Your task to perform on an android device: Add "alienware area 51" to the cart on walmart, then select checkout. Image 0: 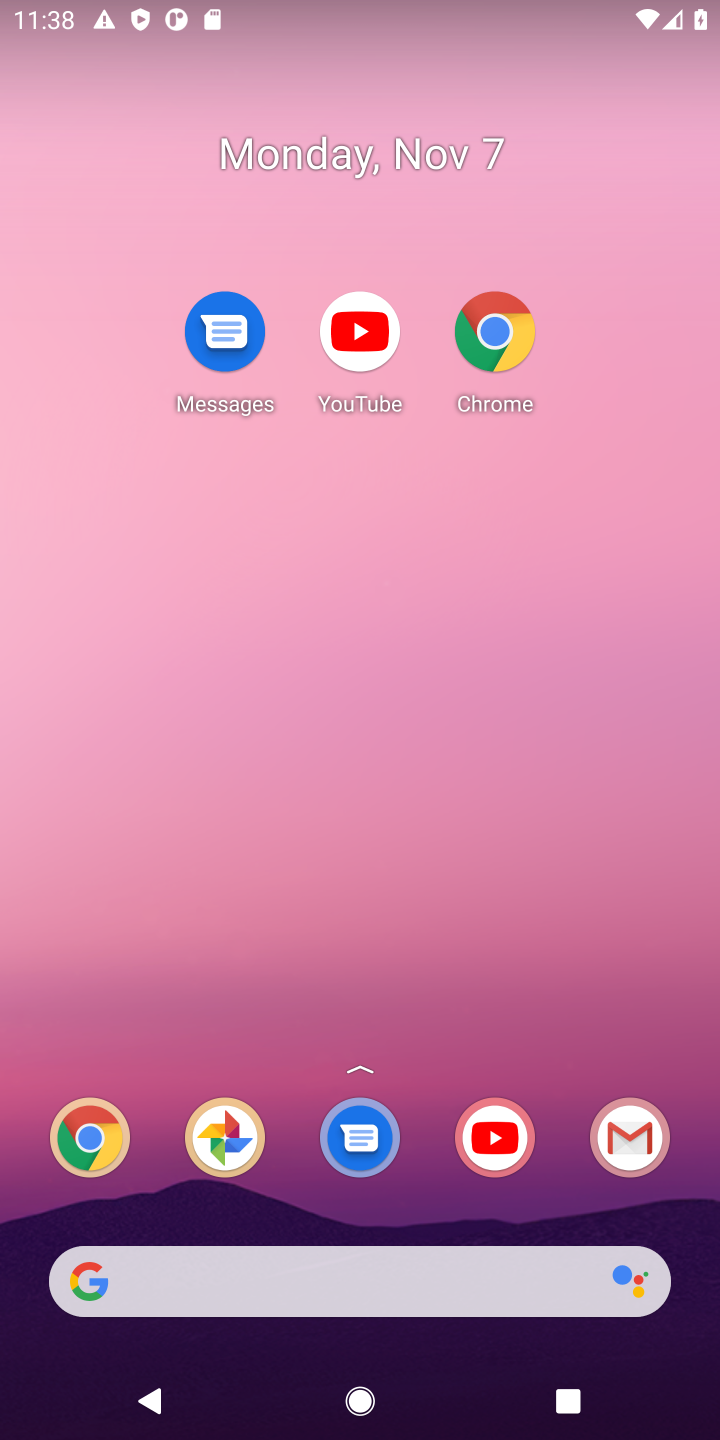
Step 0: drag from (406, 1045) to (383, 271)
Your task to perform on an android device: Add "alienware area 51" to the cart on walmart, then select checkout. Image 1: 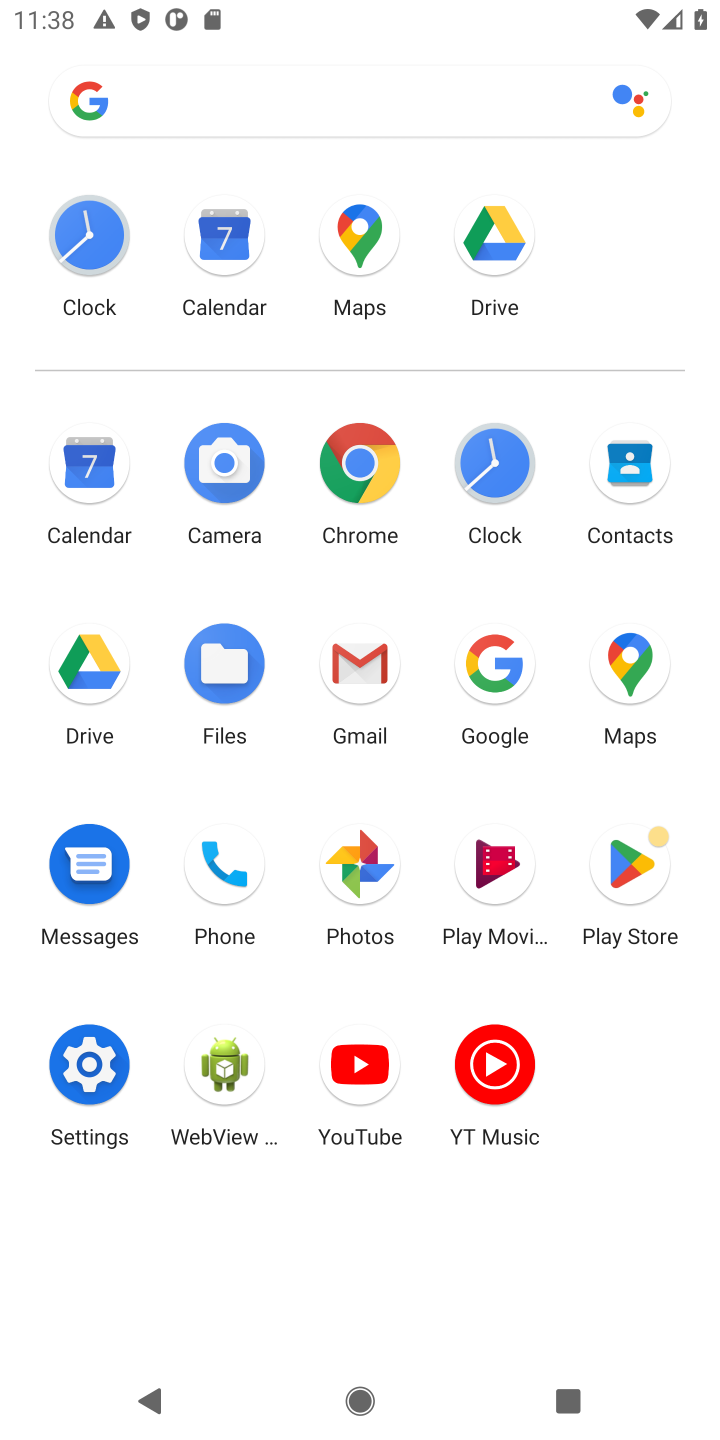
Step 1: click (359, 463)
Your task to perform on an android device: Add "alienware area 51" to the cart on walmart, then select checkout. Image 2: 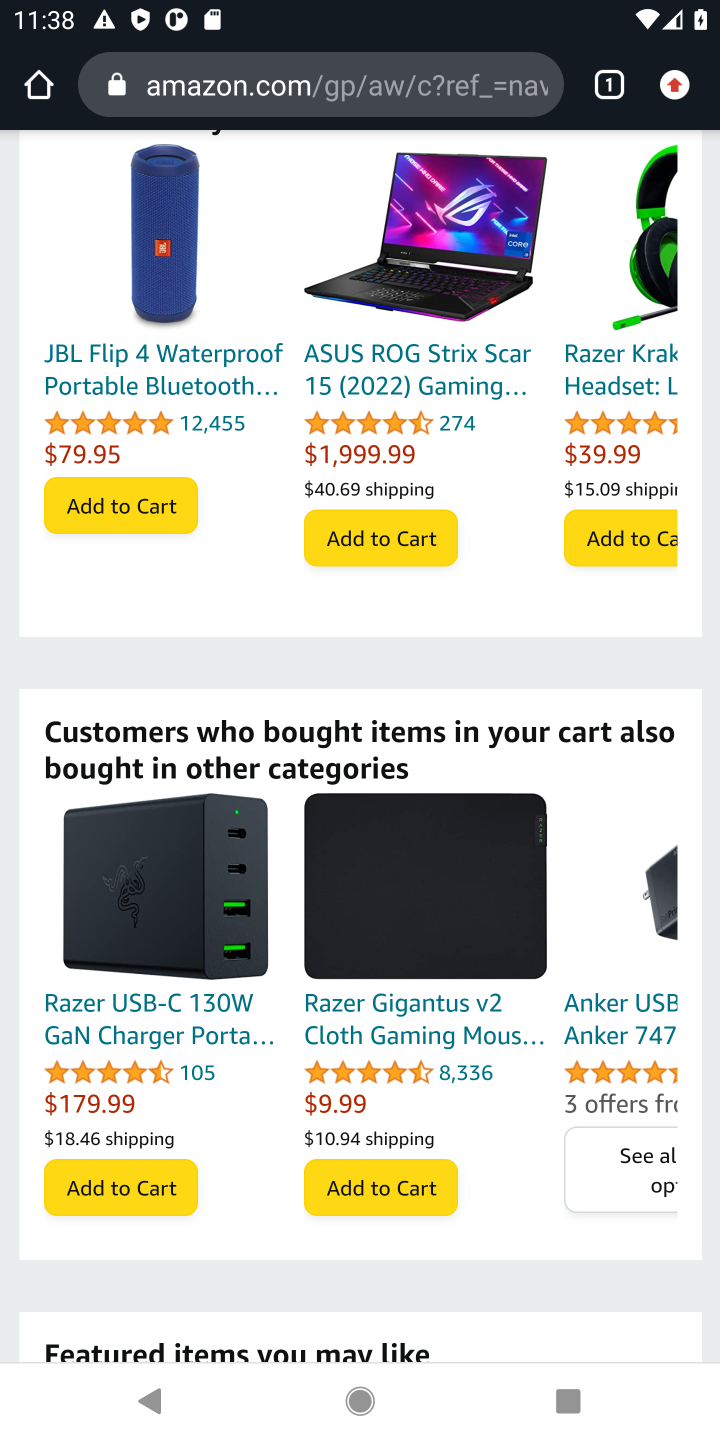
Step 2: click (359, 69)
Your task to perform on an android device: Add "alienware area 51" to the cart on walmart, then select checkout. Image 3: 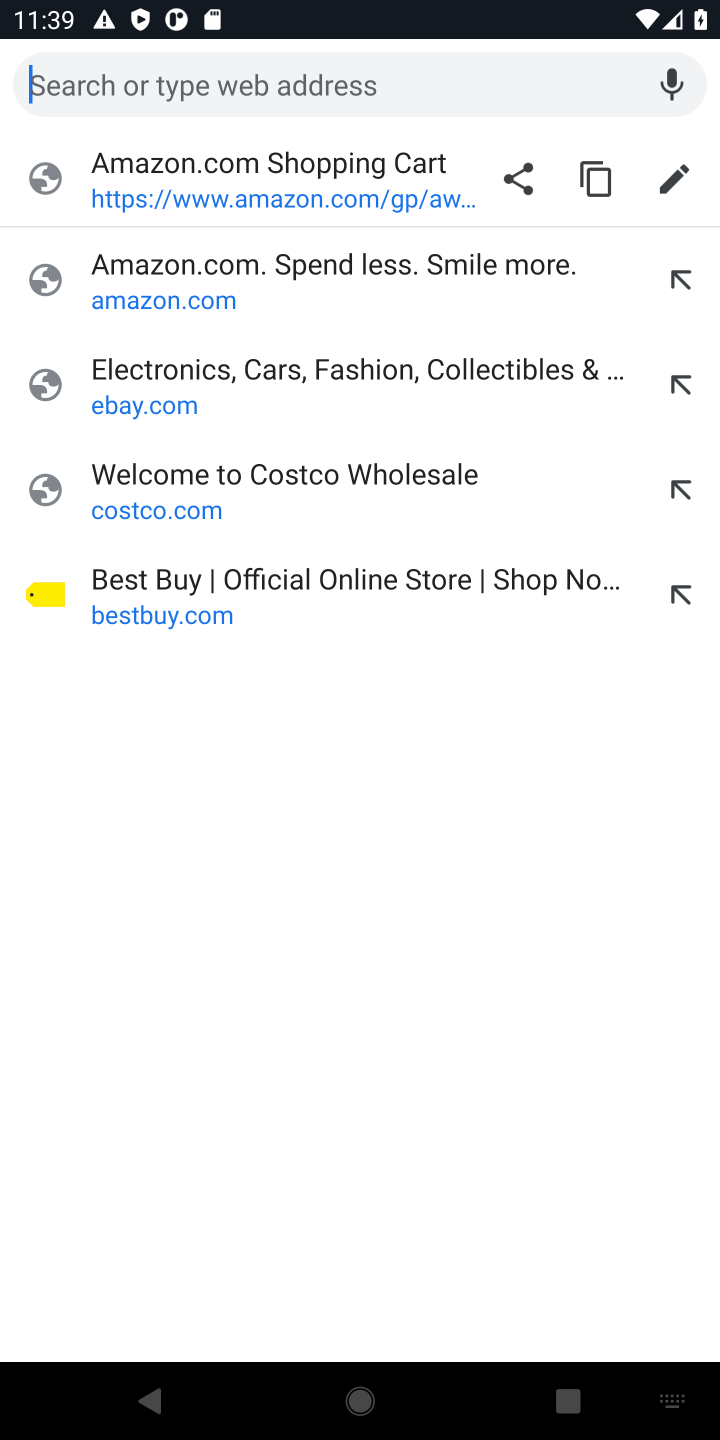
Step 3: type "walmart.com"
Your task to perform on an android device: Add "alienware area 51" to the cart on walmart, then select checkout. Image 4: 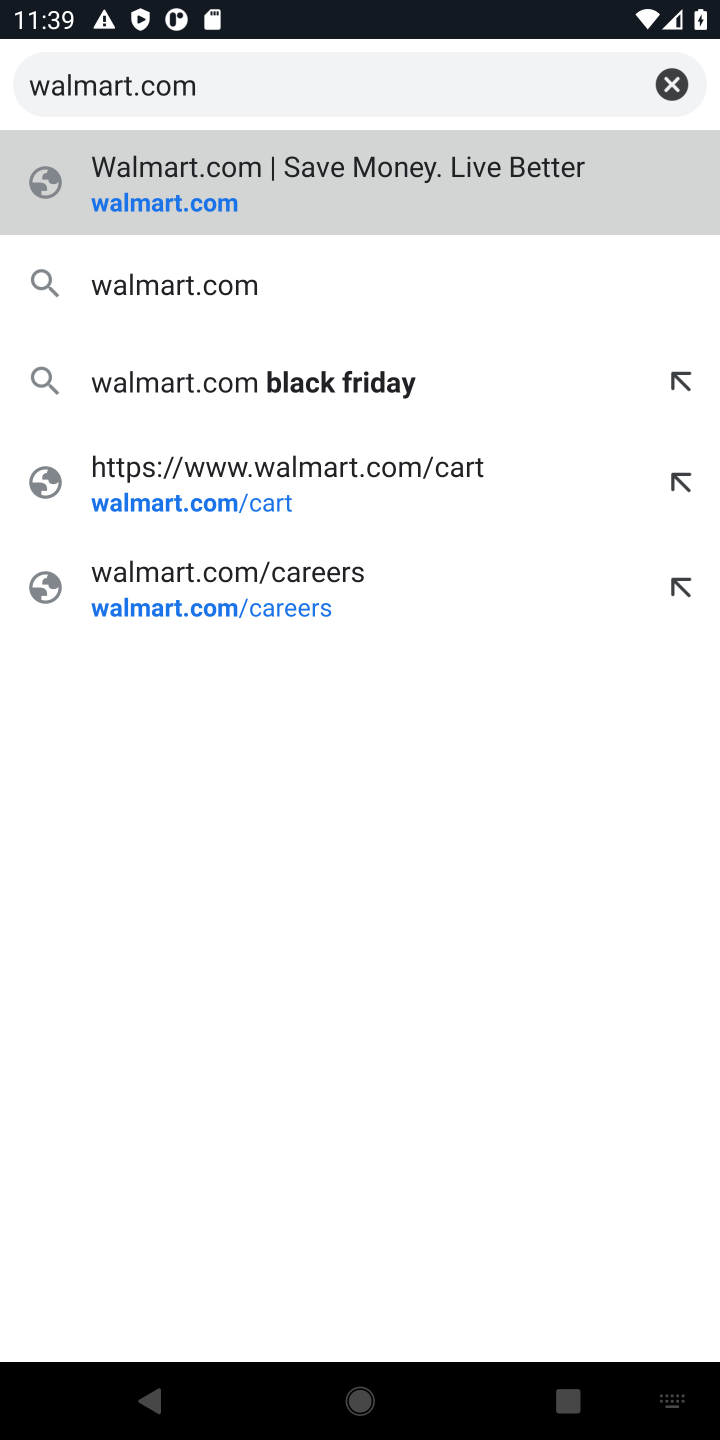
Step 4: press enter
Your task to perform on an android device: Add "alienware area 51" to the cart on walmart, then select checkout. Image 5: 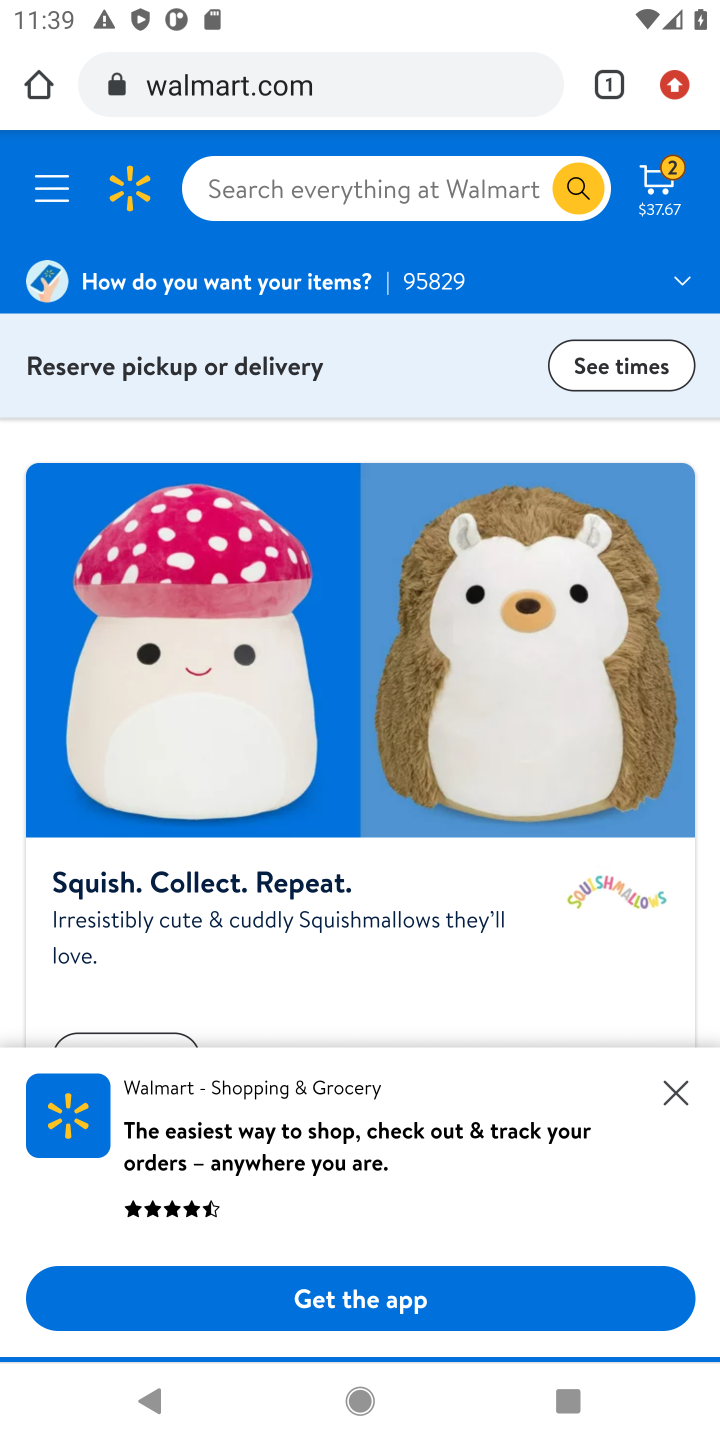
Step 5: click (667, 176)
Your task to perform on an android device: Add "alienware area 51" to the cart on walmart, then select checkout. Image 6: 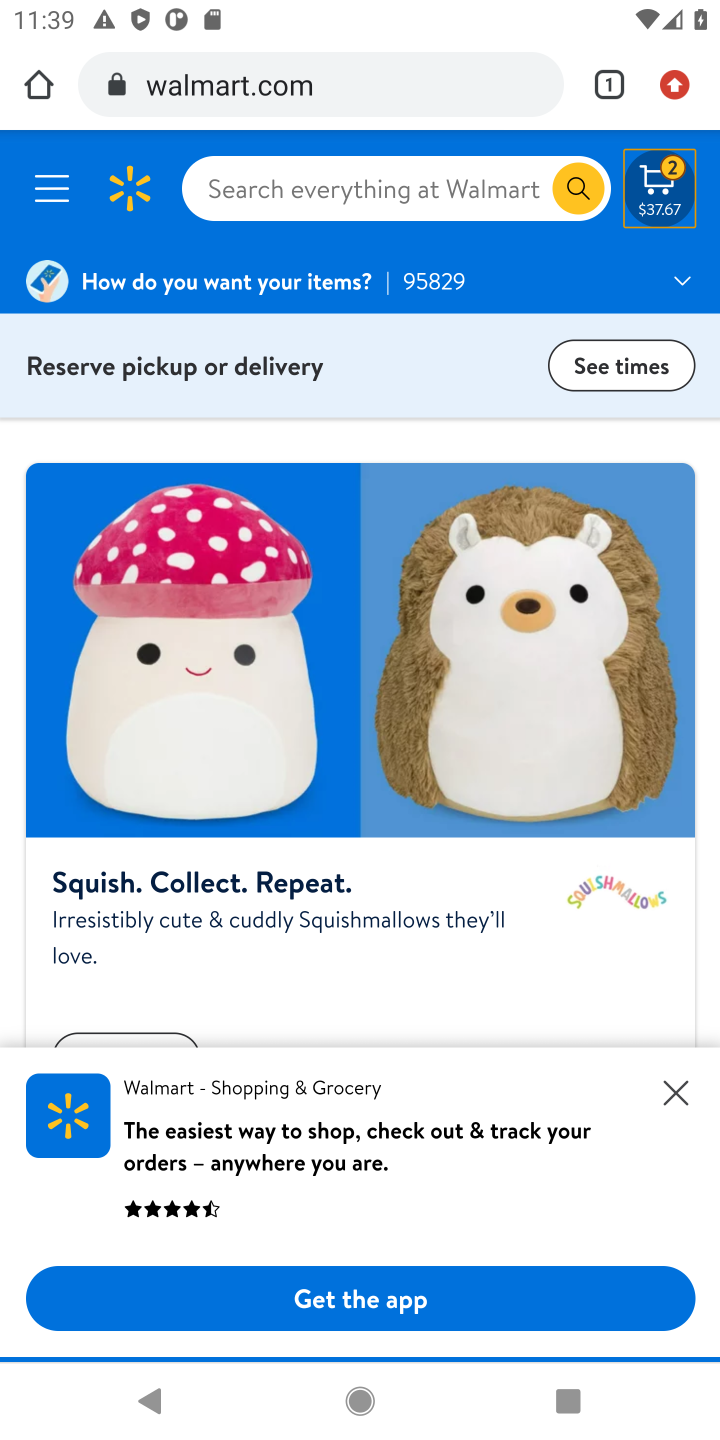
Step 6: drag from (430, 795) to (437, 228)
Your task to perform on an android device: Add "alienware area 51" to the cart on walmart, then select checkout. Image 7: 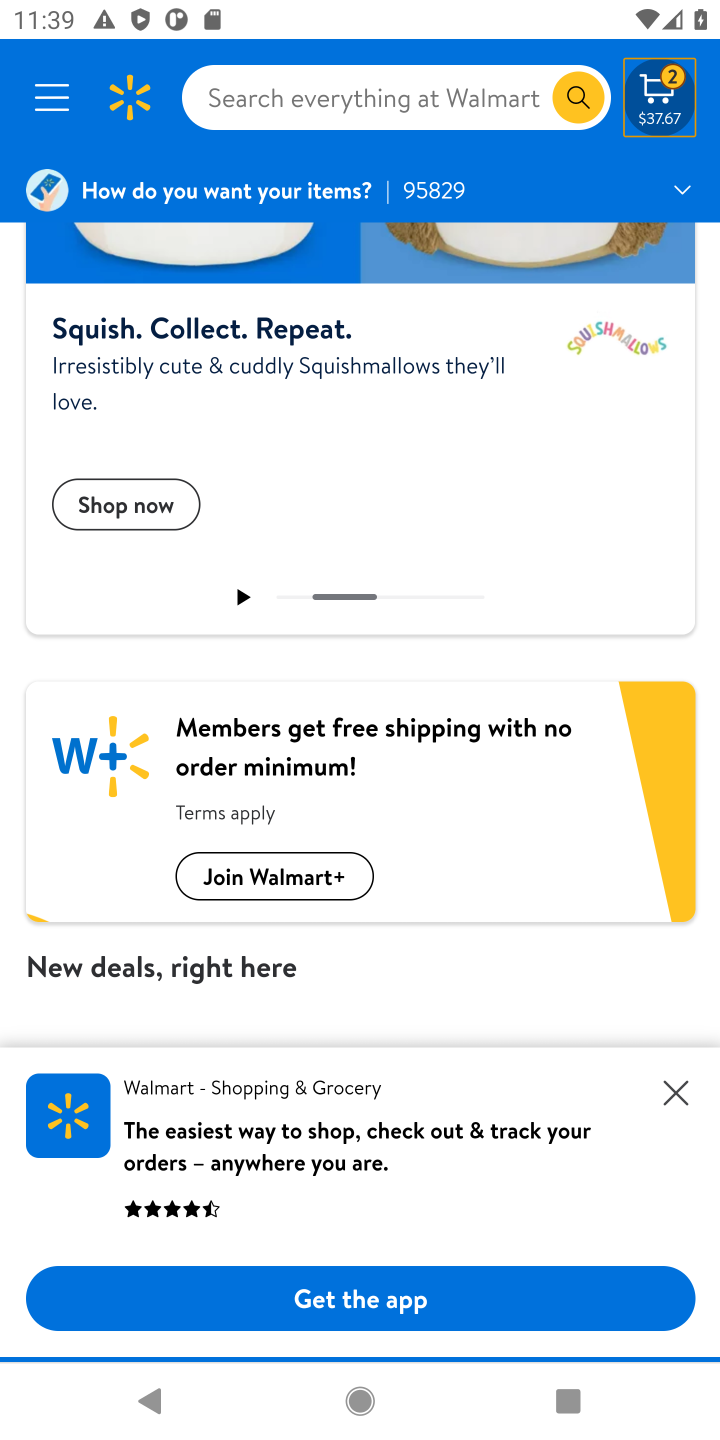
Step 7: click (665, 97)
Your task to perform on an android device: Add "alienware area 51" to the cart on walmart, then select checkout. Image 8: 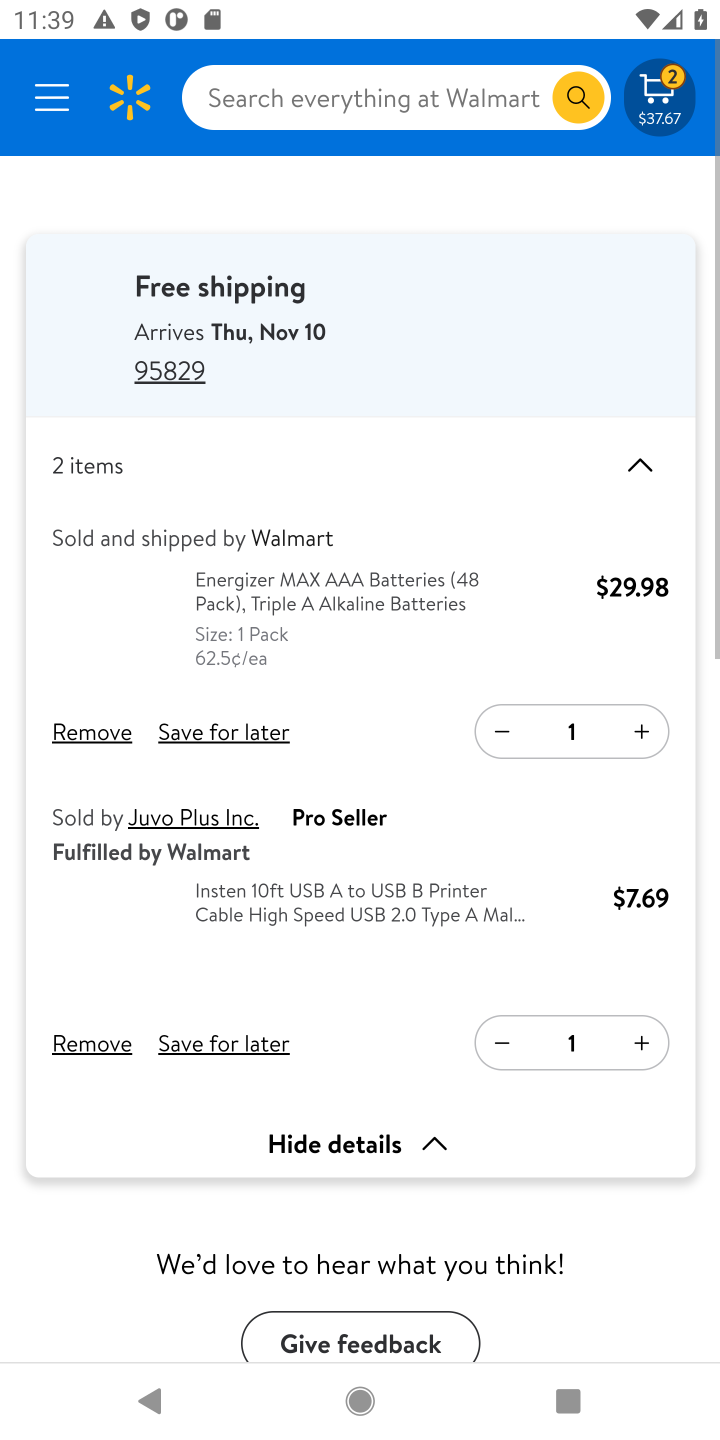
Step 8: drag from (498, 704) to (484, 145)
Your task to perform on an android device: Add "alienware area 51" to the cart on walmart, then select checkout. Image 9: 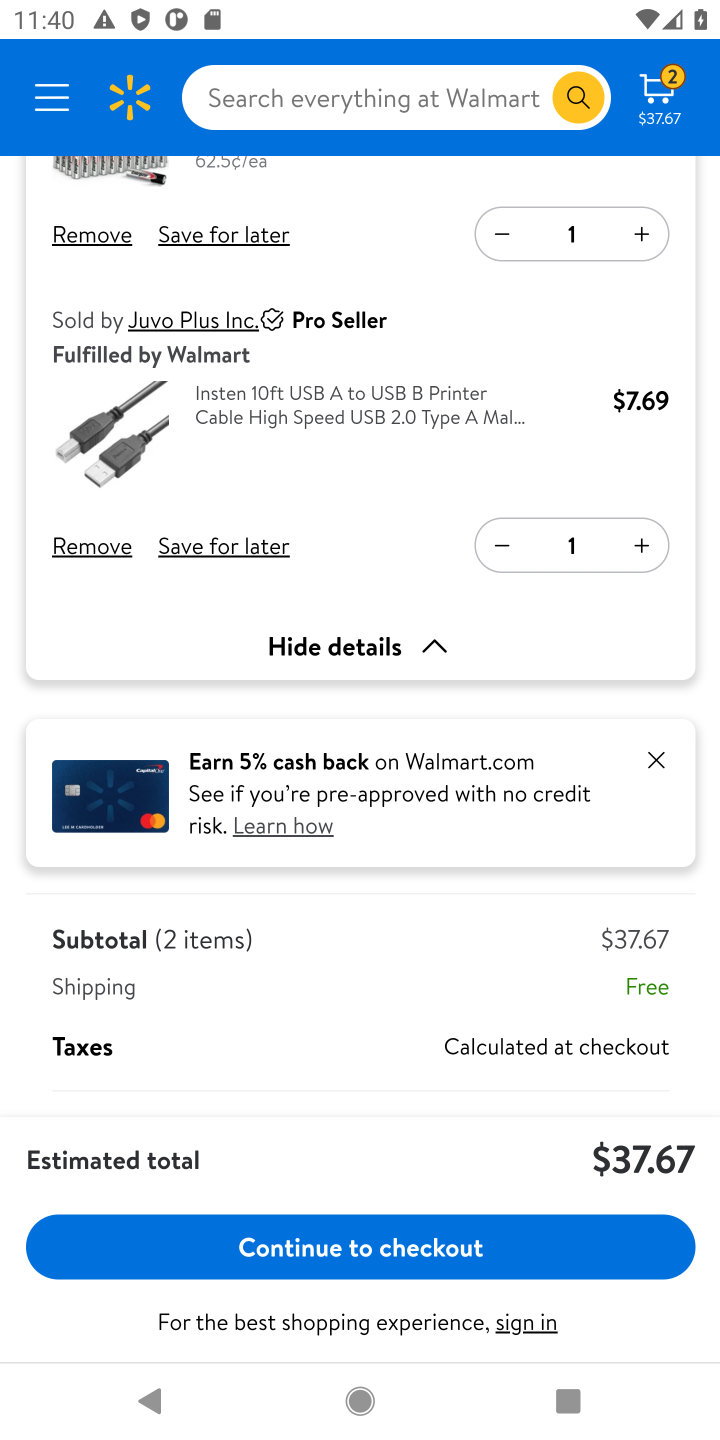
Step 9: click (435, 1252)
Your task to perform on an android device: Add "alienware area 51" to the cart on walmart, then select checkout. Image 10: 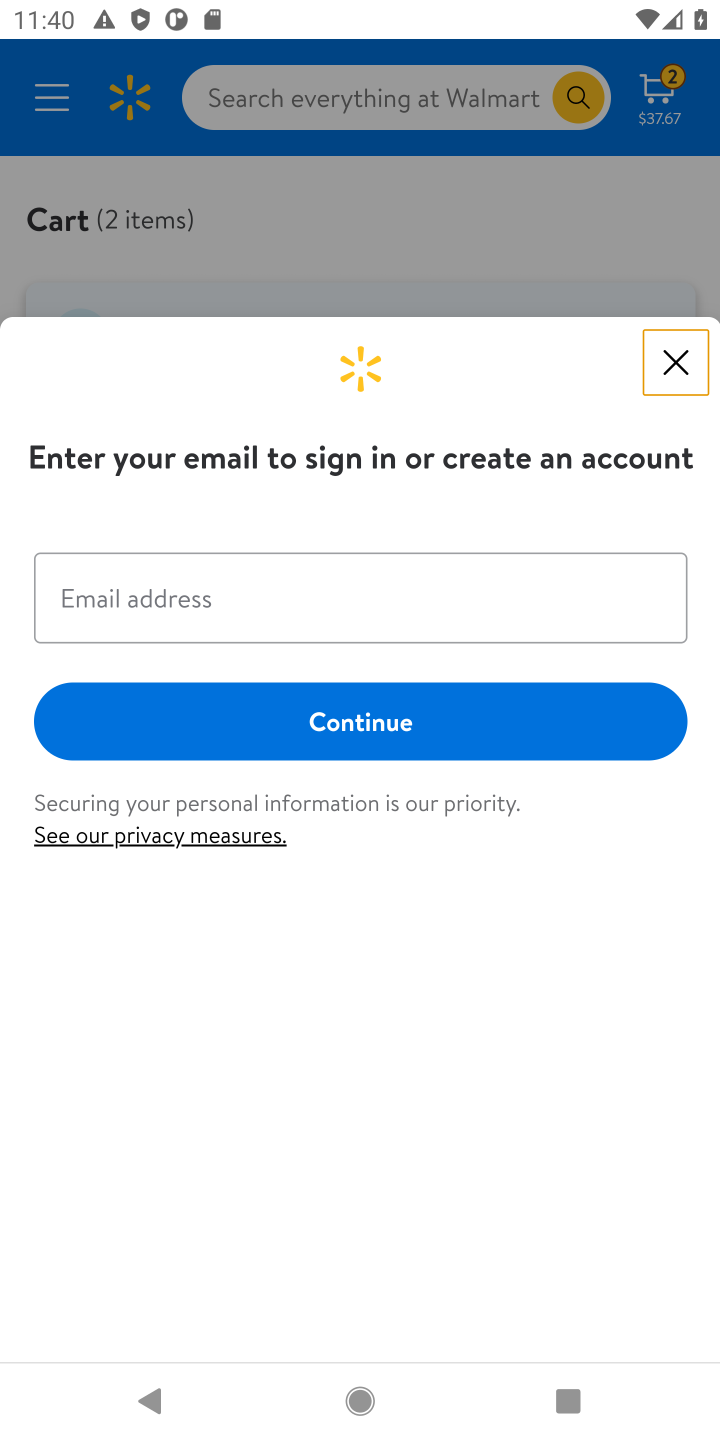
Step 10: task complete